Your task to perform on an android device: open a bookmark in the chrome app Image 0: 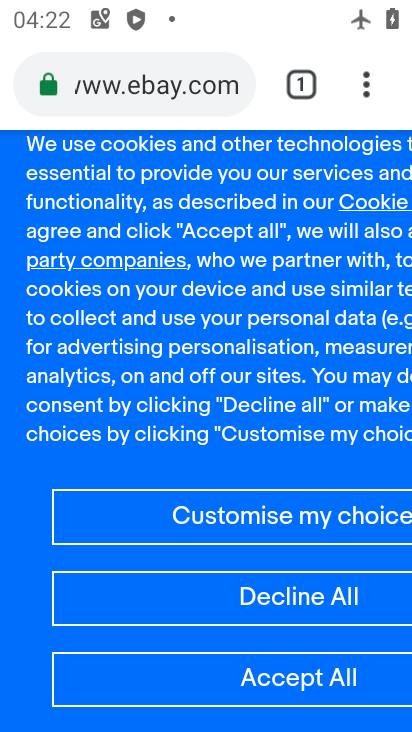
Step 0: drag from (379, 69) to (271, 308)
Your task to perform on an android device: open a bookmark in the chrome app Image 1: 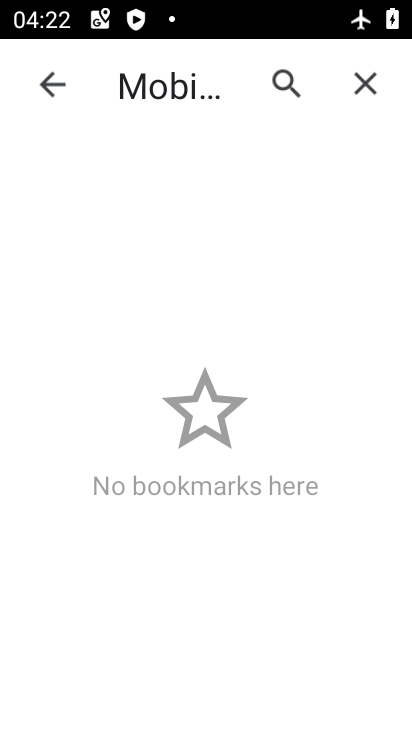
Step 1: task complete